Your task to perform on an android device: Is it going to rain this weekend? Image 0: 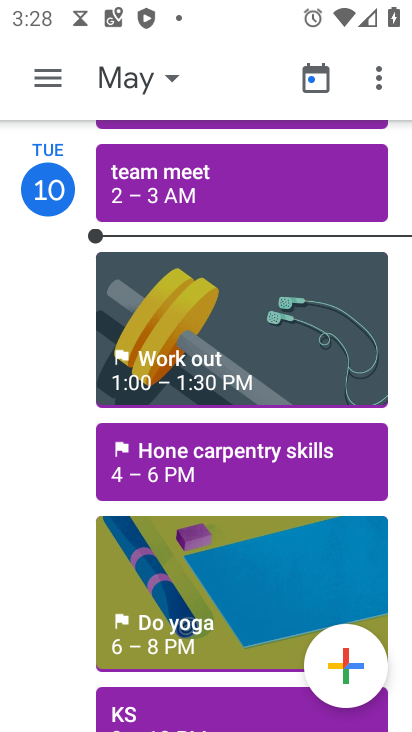
Step 0: drag from (325, 607) to (145, 48)
Your task to perform on an android device: Is it going to rain this weekend? Image 1: 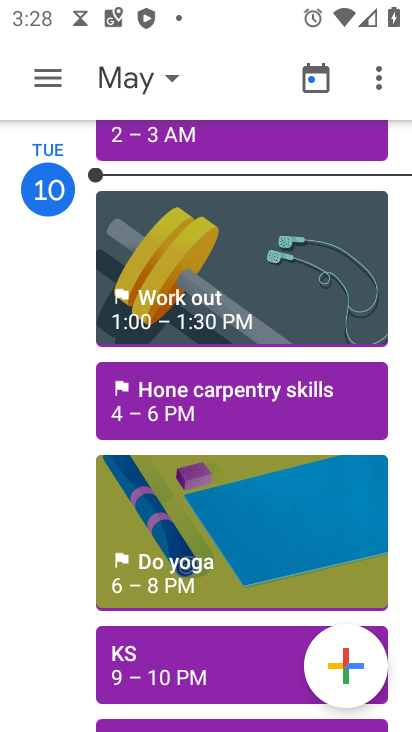
Step 1: press back button
Your task to perform on an android device: Is it going to rain this weekend? Image 2: 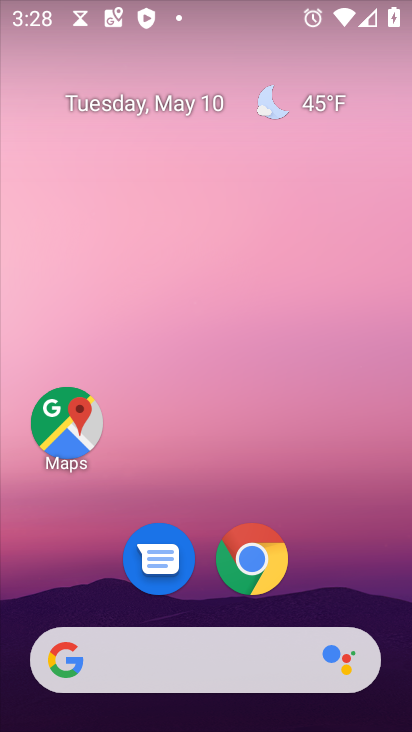
Step 2: click (270, 132)
Your task to perform on an android device: Is it going to rain this weekend? Image 3: 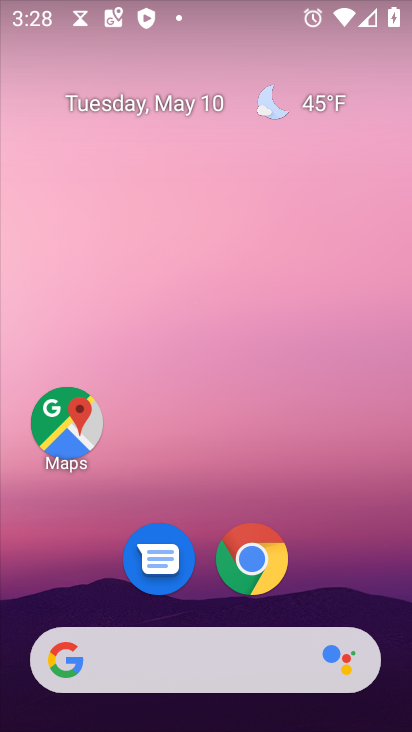
Step 3: click (268, 116)
Your task to perform on an android device: Is it going to rain this weekend? Image 4: 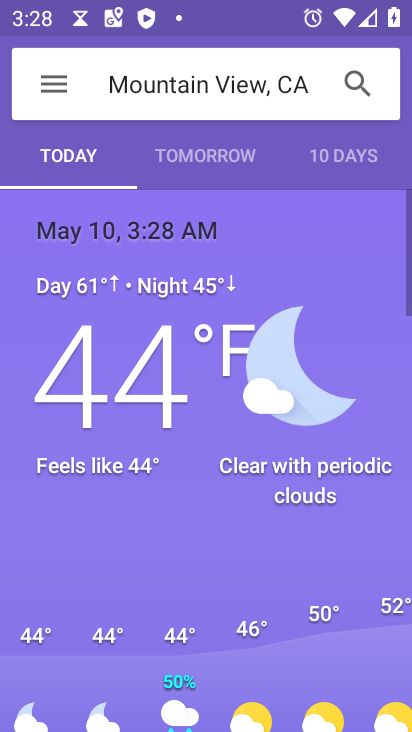
Step 4: click (268, 111)
Your task to perform on an android device: Is it going to rain this weekend? Image 5: 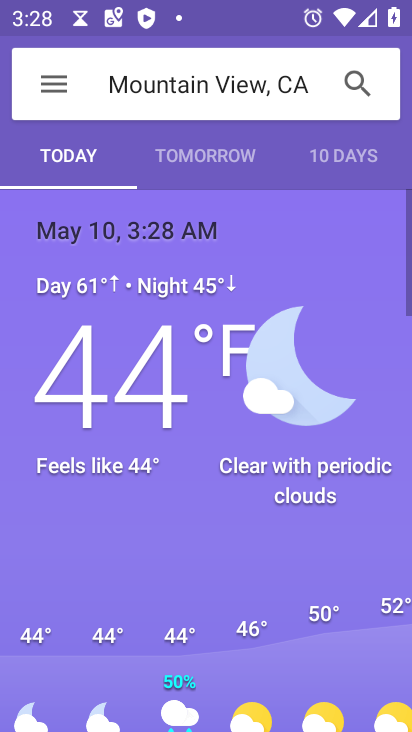
Step 5: click (255, 106)
Your task to perform on an android device: Is it going to rain this weekend? Image 6: 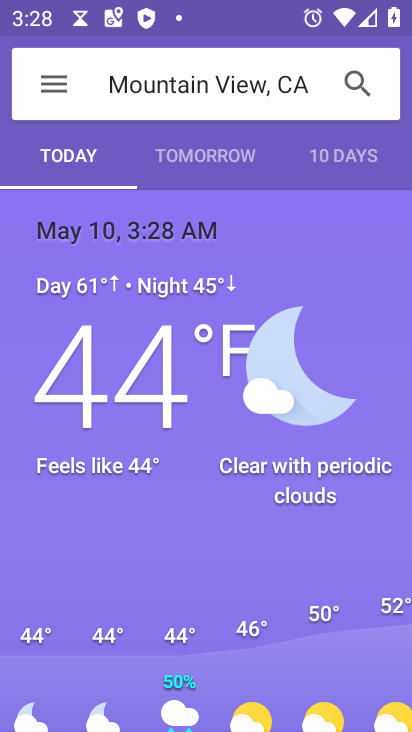
Step 6: drag from (233, 507) to (124, 56)
Your task to perform on an android device: Is it going to rain this weekend? Image 7: 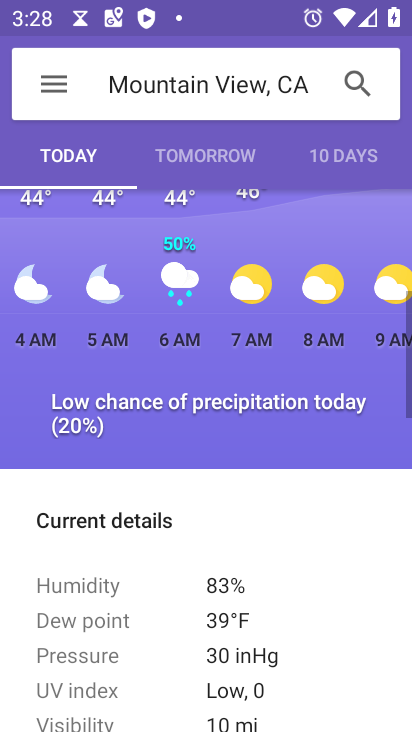
Step 7: drag from (200, 388) to (192, 100)
Your task to perform on an android device: Is it going to rain this weekend? Image 8: 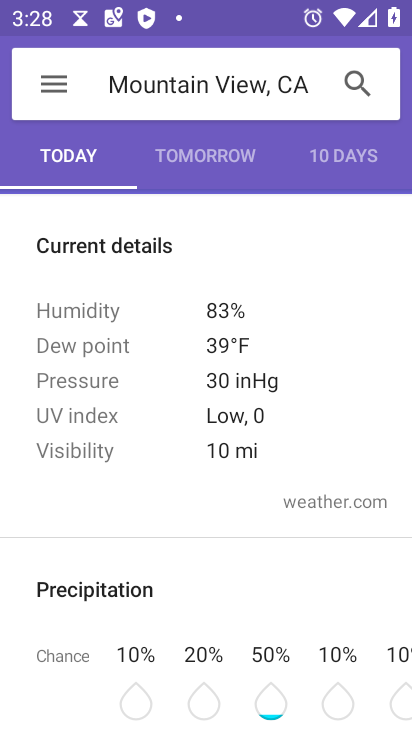
Step 8: click (216, 261)
Your task to perform on an android device: Is it going to rain this weekend? Image 9: 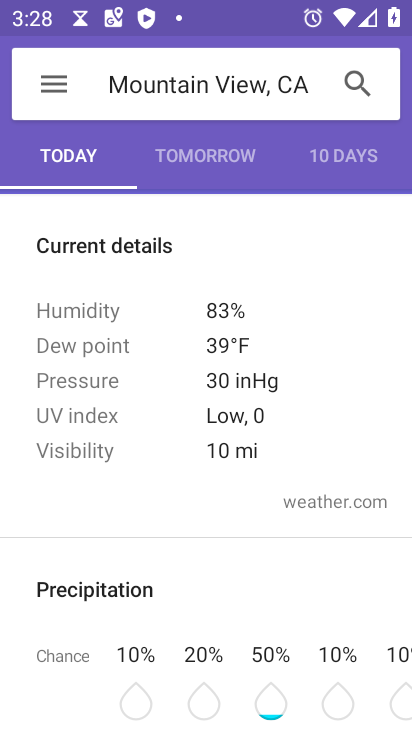
Step 9: task complete